Your task to perform on an android device: Open Yahoo.com Image 0: 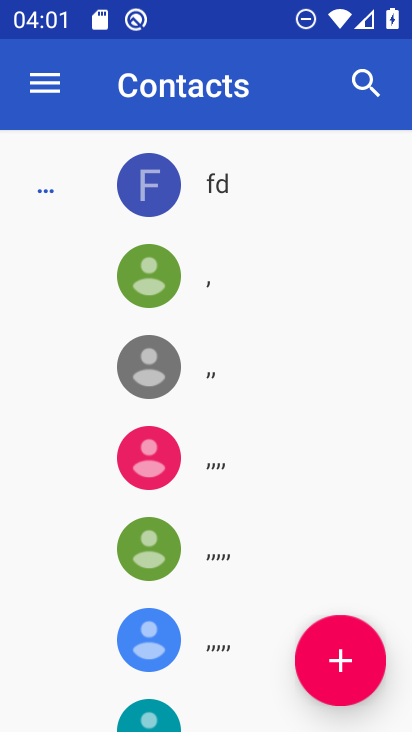
Step 0: press home button
Your task to perform on an android device: Open Yahoo.com Image 1: 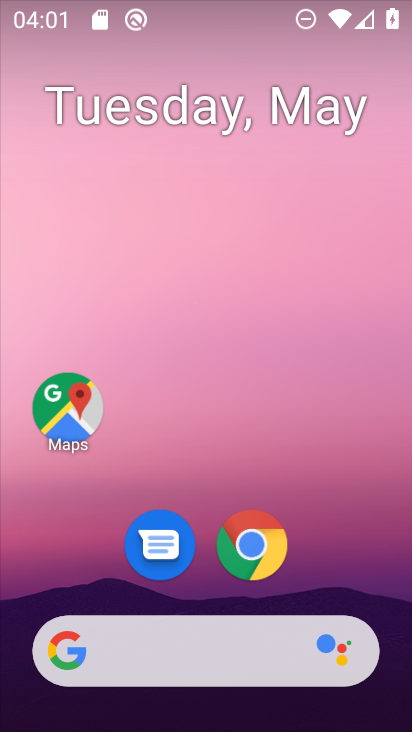
Step 1: click (248, 547)
Your task to perform on an android device: Open Yahoo.com Image 2: 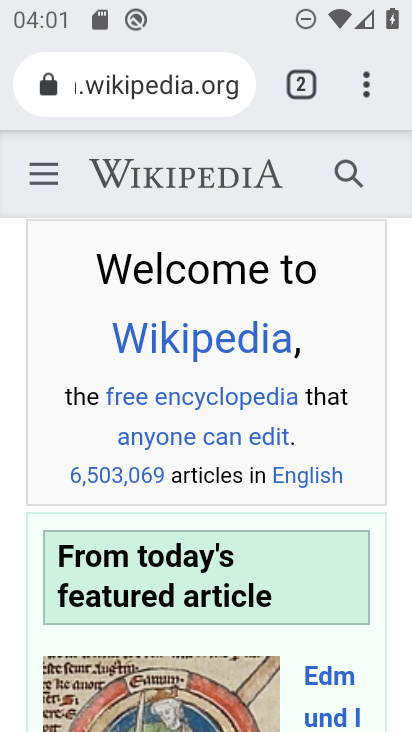
Step 2: click (137, 86)
Your task to perform on an android device: Open Yahoo.com Image 3: 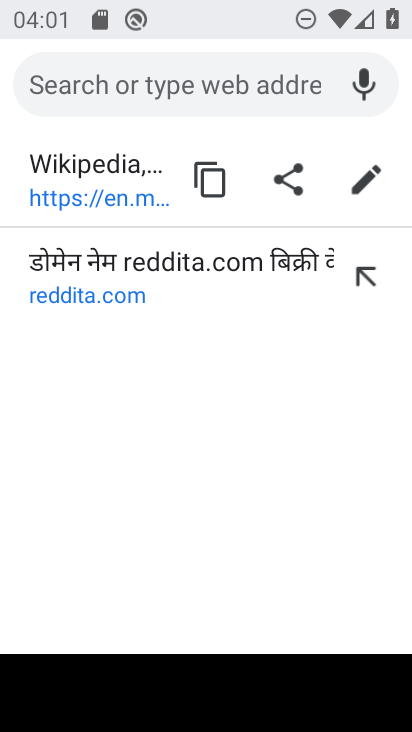
Step 3: type "yahoo.com"
Your task to perform on an android device: Open Yahoo.com Image 4: 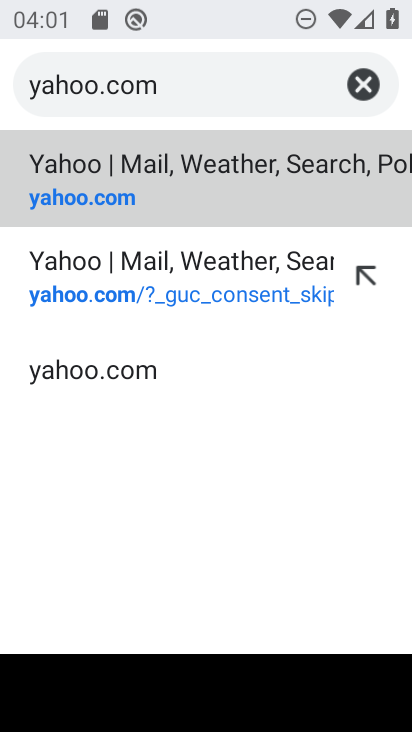
Step 4: click (116, 161)
Your task to perform on an android device: Open Yahoo.com Image 5: 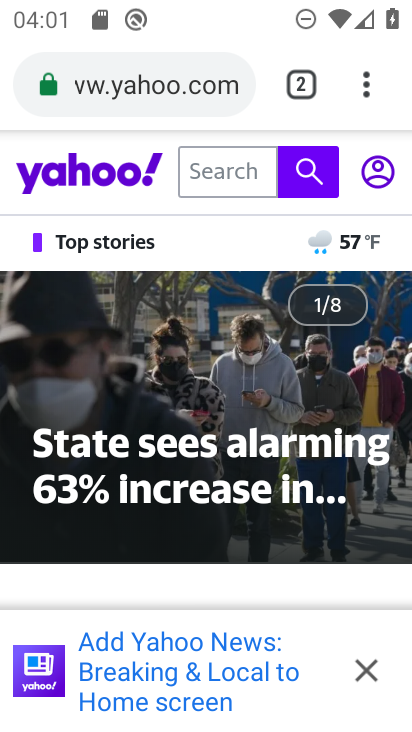
Step 5: task complete